Your task to perform on an android device: delete the emails in spam in the gmail app Image 0: 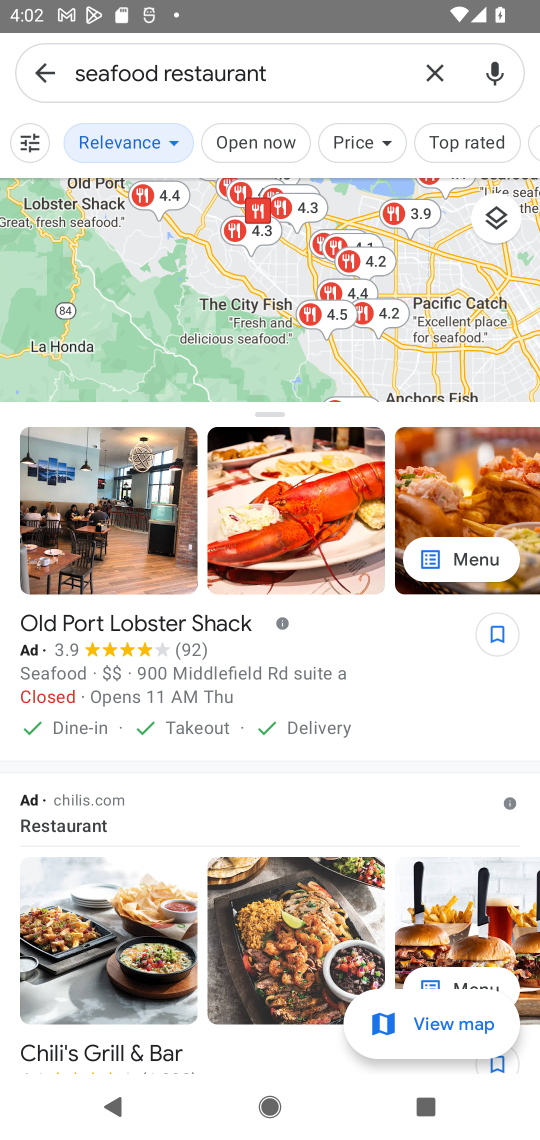
Step 0: press home button
Your task to perform on an android device: delete the emails in spam in the gmail app Image 1: 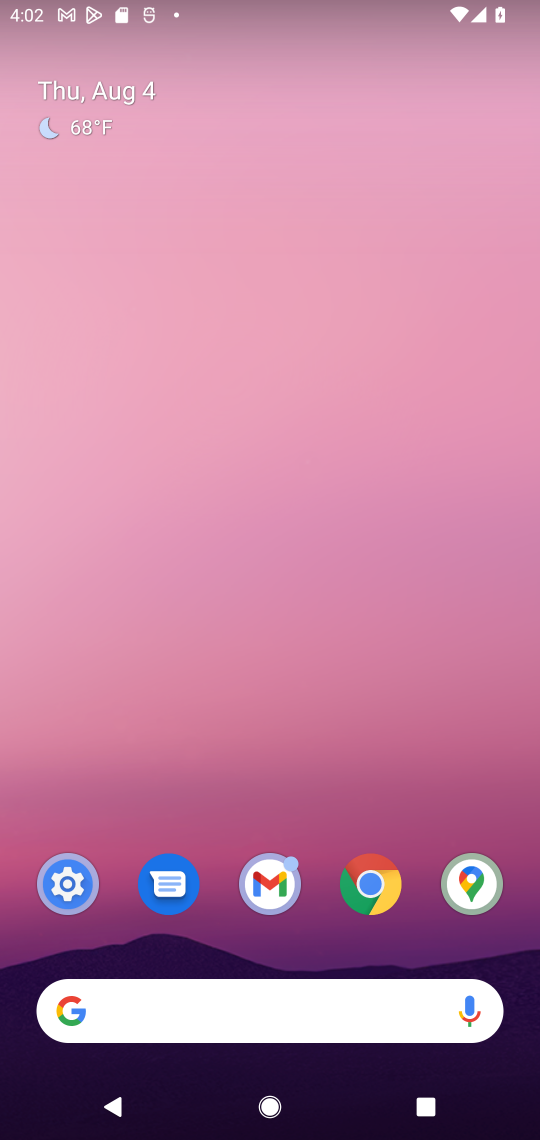
Step 1: click (280, 885)
Your task to perform on an android device: delete the emails in spam in the gmail app Image 2: 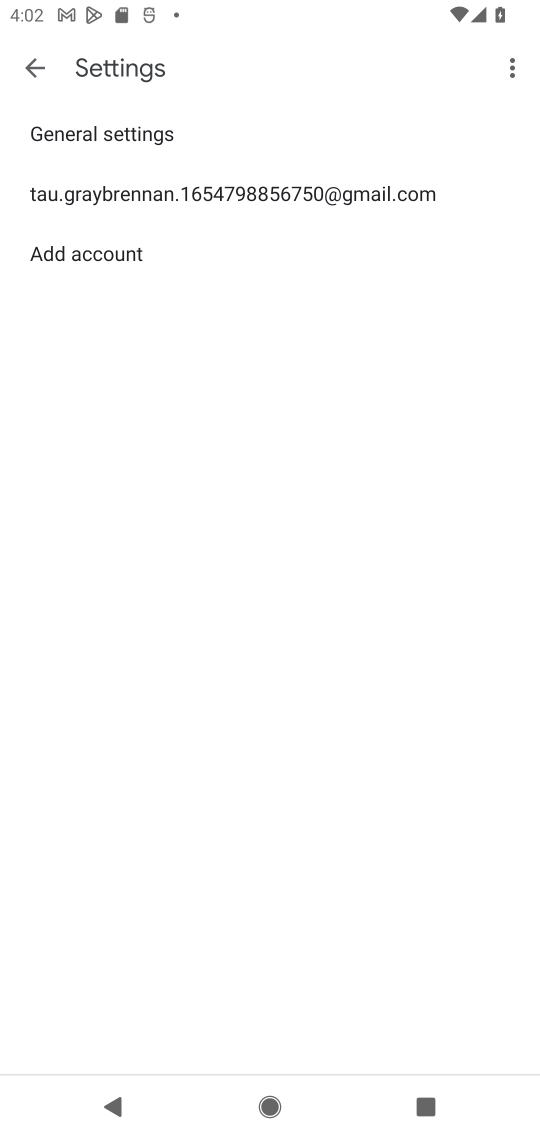
Step 2: click (36, 75)
Your task to perform on an android device: delete the emails in spam in the gmail app Image 3: 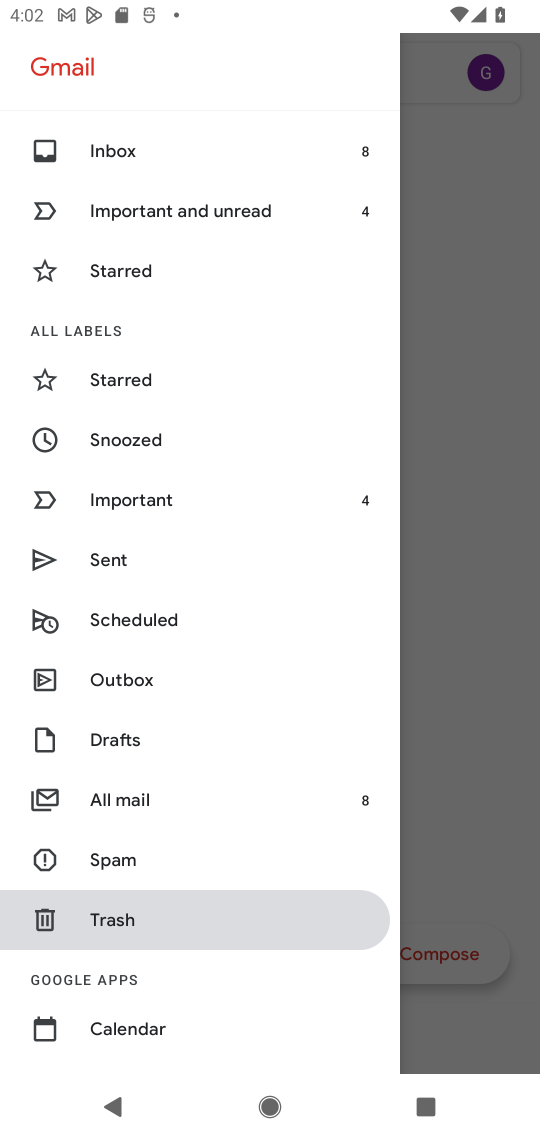
Step 3: click (159, 863)
Your task to perform on an android device: delete the emails in spam in the gmail app Image 4: 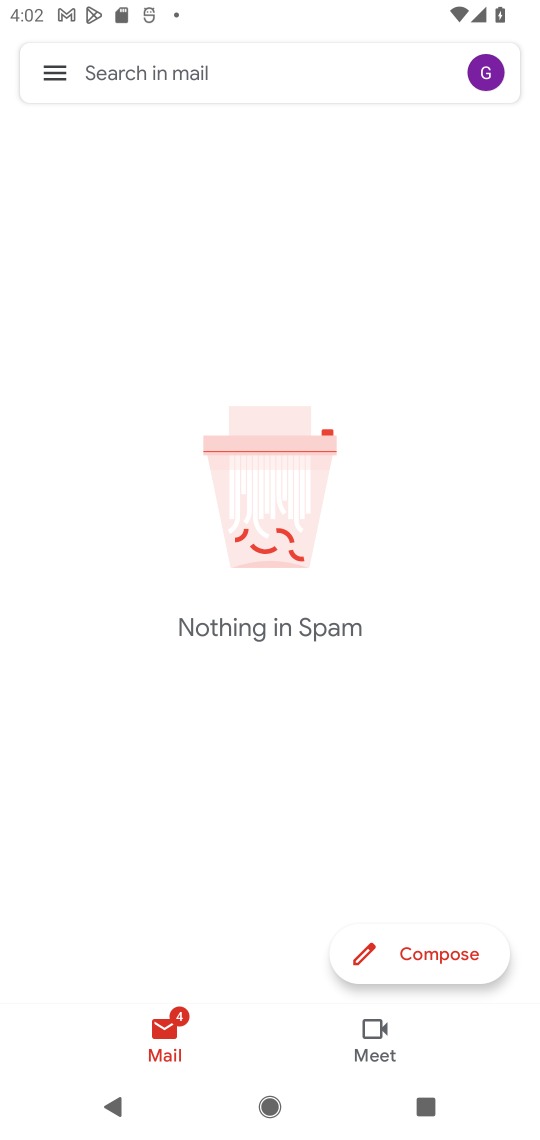
Step 4: task complete